Your task to perform on an android device: check google app version Image 0: 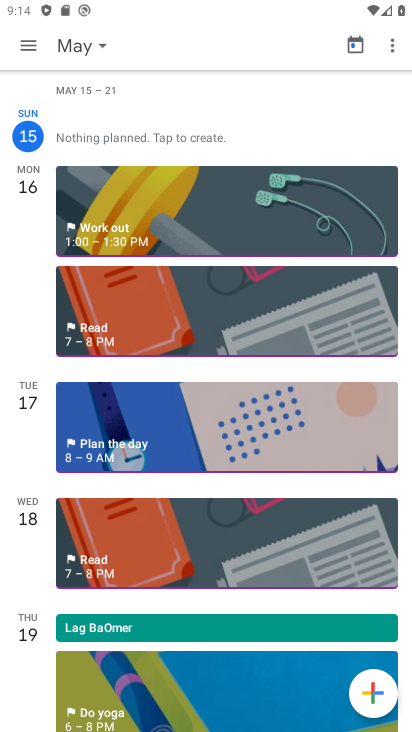
Step 0: press home button
Your task to perform on an android device: check google app version Image 1: 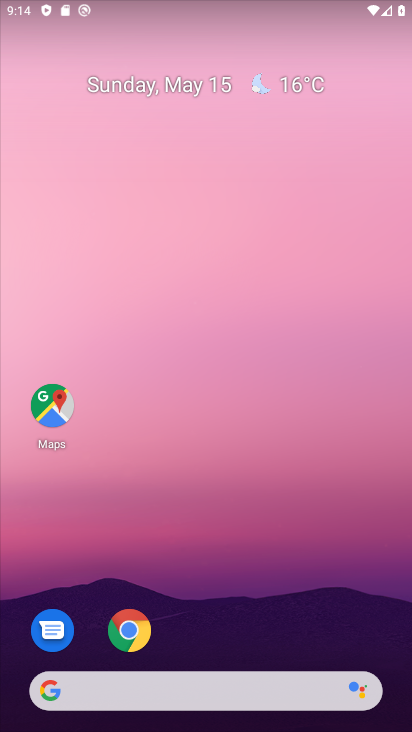
Step 1: drag from (211, 636) to (215, 231)
Your task to perform on an android device: check google app version Image 2: 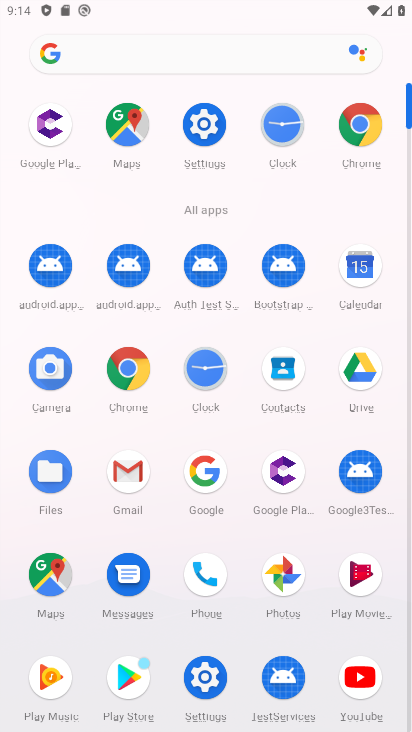
Step 2: click (198, 469)
Your task to perform on an android device: check google app version Image 3: 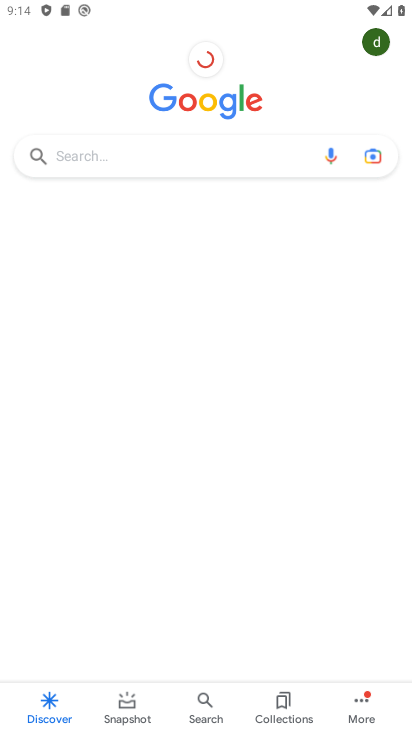
Step 3: click (368, 713)
Your task to perform on an android device: check google app version Image 4: 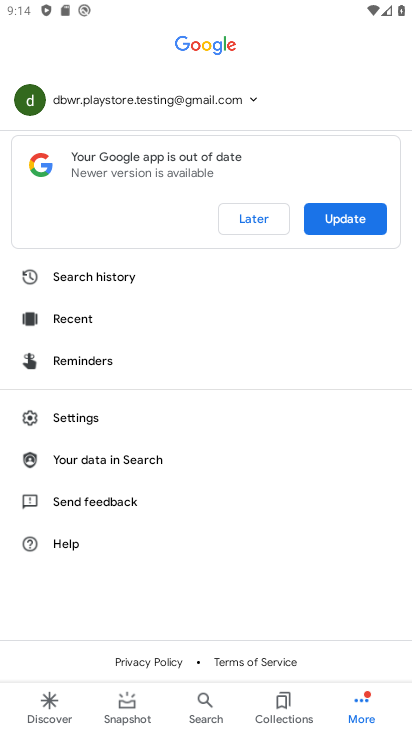
Step 4: click (96, 424)
Your task to perform on an android device: check google app version Image 5: 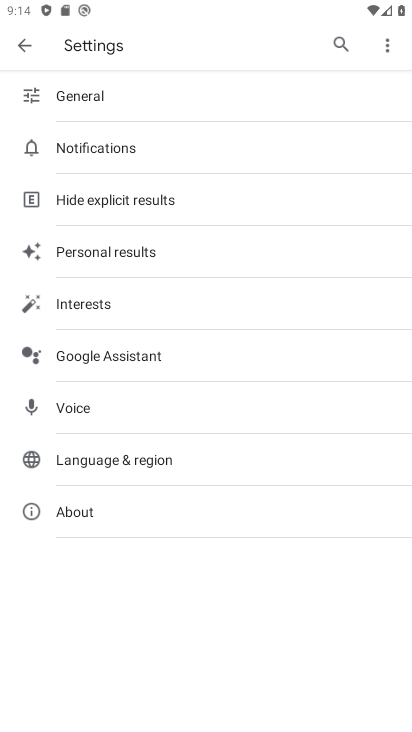
Step 5: click (130, 503)
Your task to perform on an android device: check google app version Image 6: 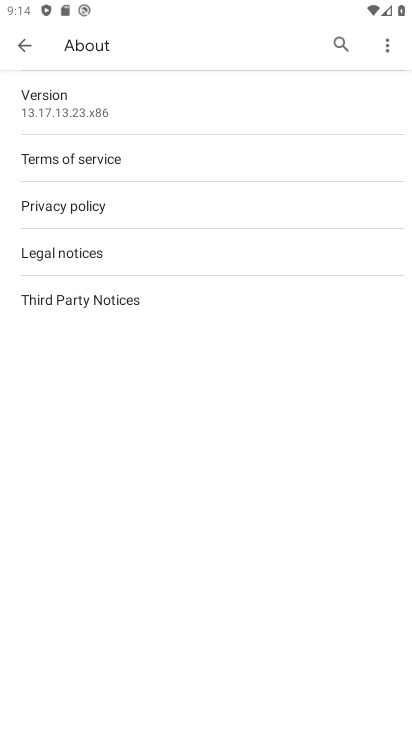
Step 6: click (136, 118)
Your task to perform on an android device: check google app version Image 7: 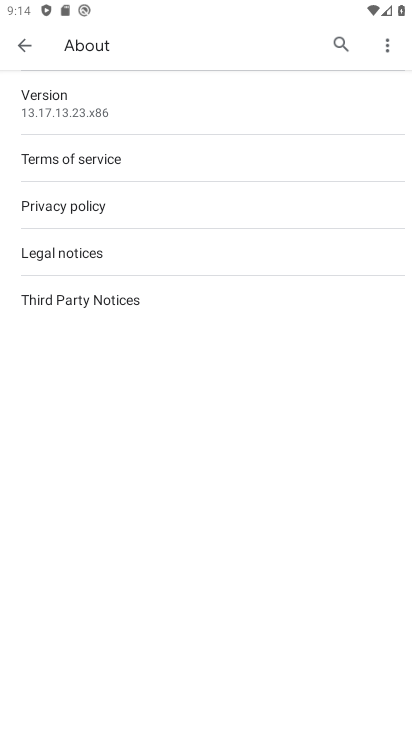
Step 7: task complete